Your task to perform on an android device: open a bookmark in the chrome app Image 0: 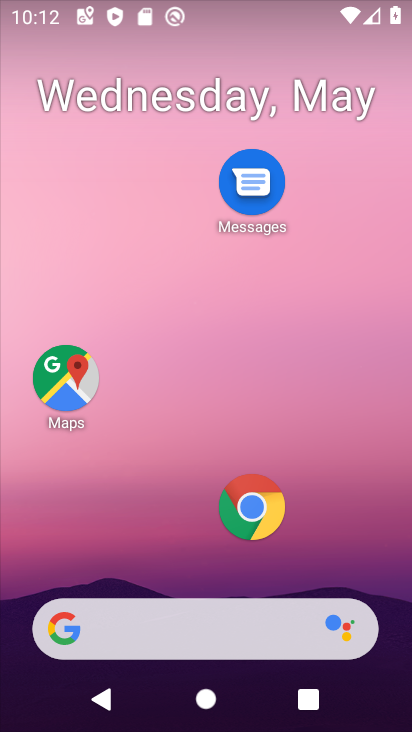
Step 0: press home button
Your task to perform on an android device: open a bookmark in the chrome app Image 1: 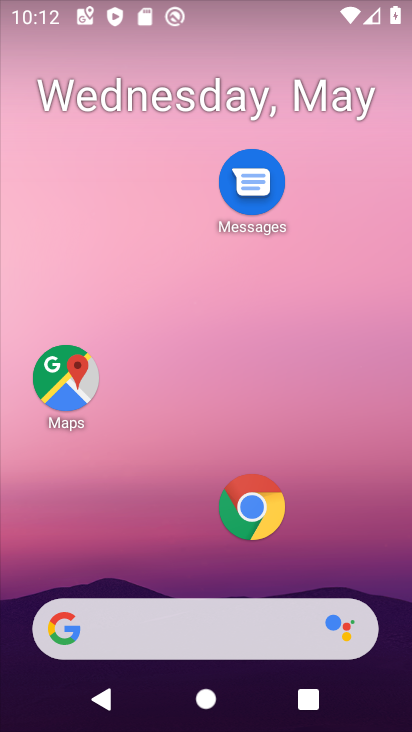
Step 1: click (248, 501)
Your task to perform on an android device: open a bookmark in the chrome app Image 2: 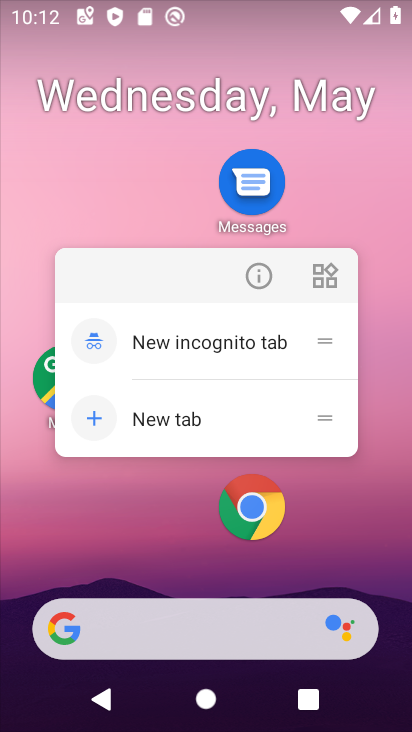
Step 2: click (248, 501)
Your task to perform on an android device: open a bookmark in the chrome app Image 3: 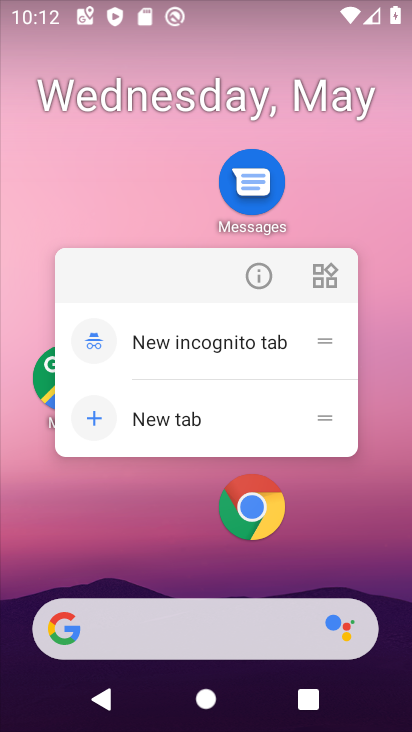
Step 3: click (247, 497)
Your task to perform on an android device: open a bookmark in the chrome app Image 4: 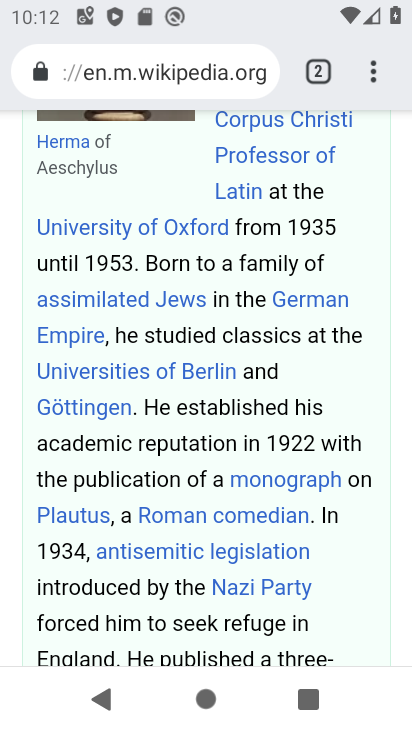
Step 4: click (373, 67)
Your task to perform on an android device: open a bookmark in the chrome app Image 5: 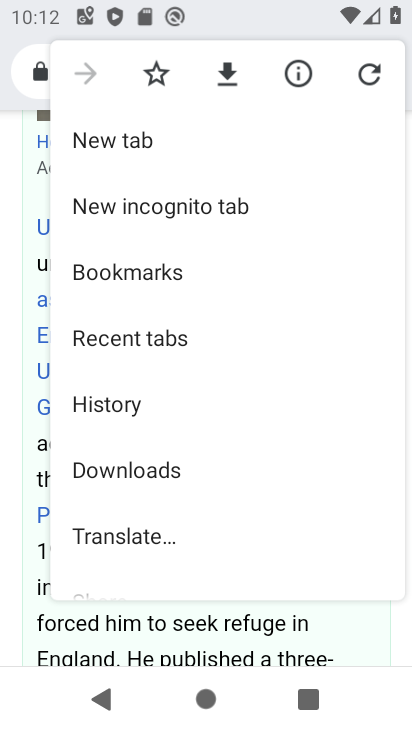
Step 5: click (184, 268)
Your task to perform on an android device: open a bookmark in the chrome app Image 6: 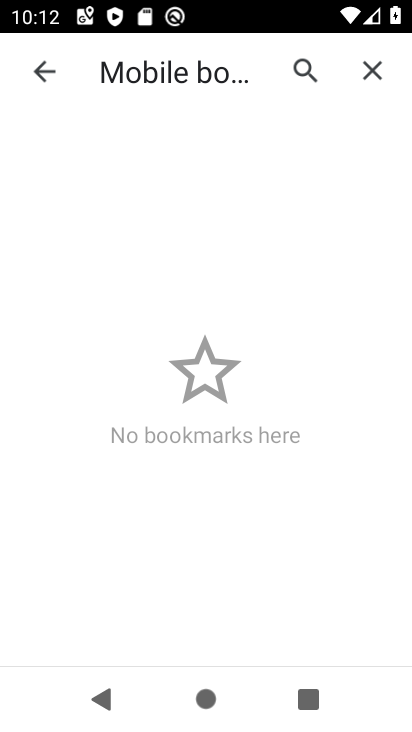
Step 6: task complete